Your task to perform on an android device: Open Yahoo.com Image 0: 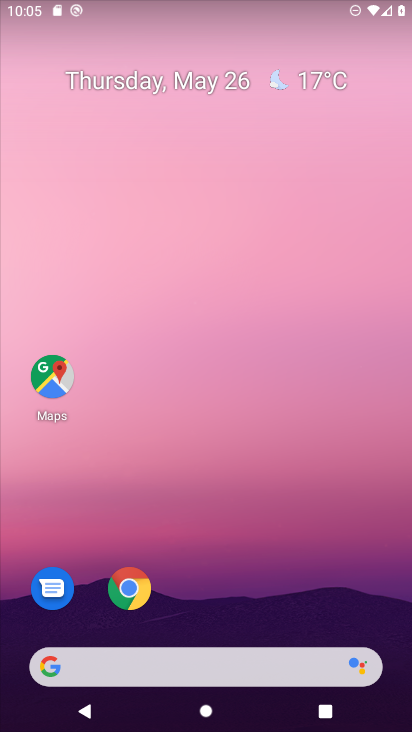
Step 0: click (133, 586)
Your task to perform on an android device: Open Yahoo.com Image 1: 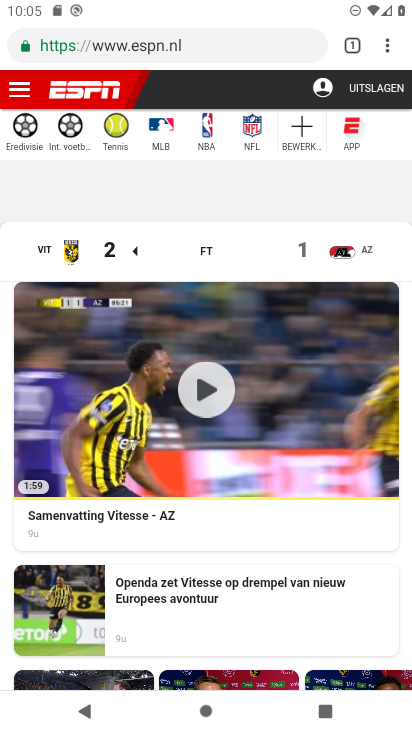
Step 1: click (217, 44)
Your task to perform on an android device: Open Yahoo.com Image 2: 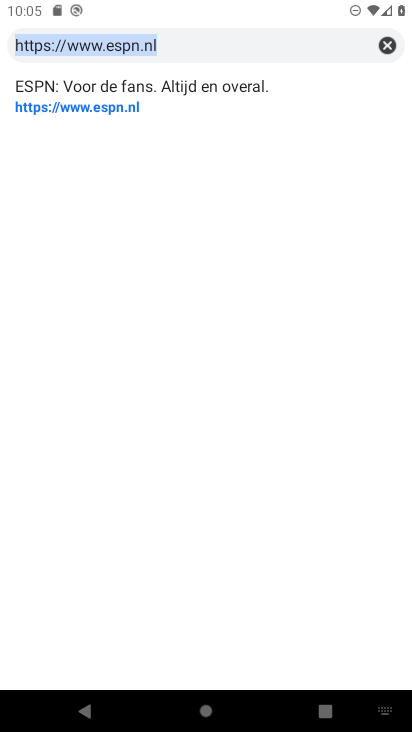
Step 2: click (383, 44)
Your task to perform on an android device: Open Yahoo.com Image 3: 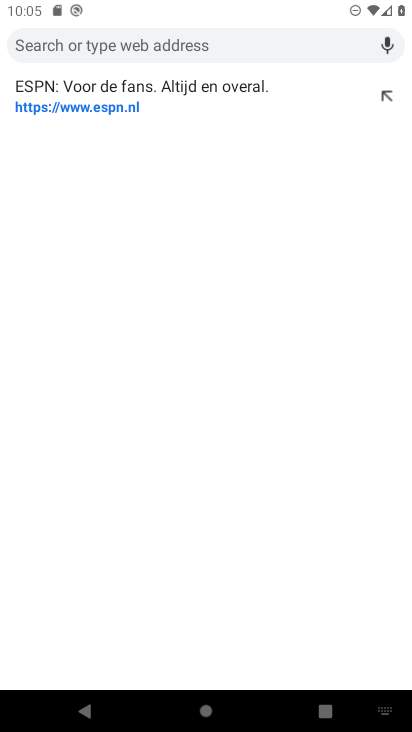
Step 3: type "yahoo.com"
Your task to perform on an android device: Open Yahoo.com Image 4: 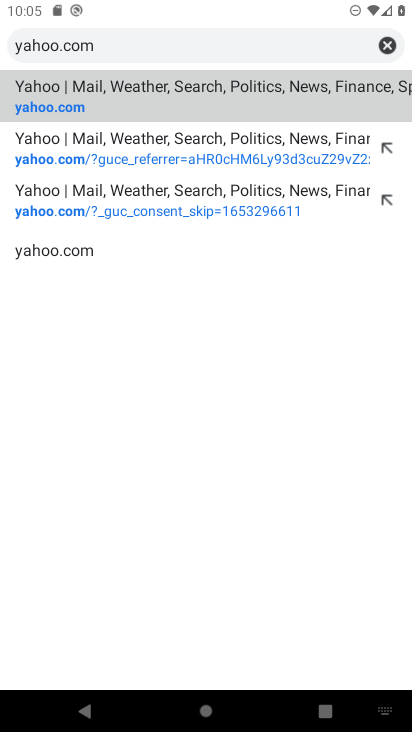
Step 4: click (54, 98)
Your task to perform on an android device: Open Yahoo.com Image 5: 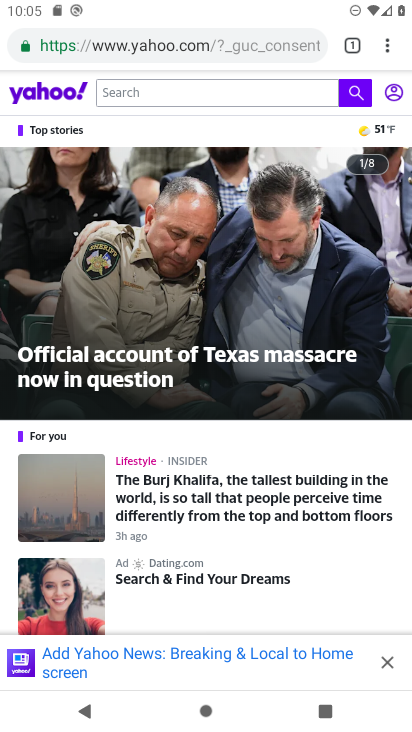
Step 5: task complete